Your task to perform on an android device: When is my next meeting? Image 0: 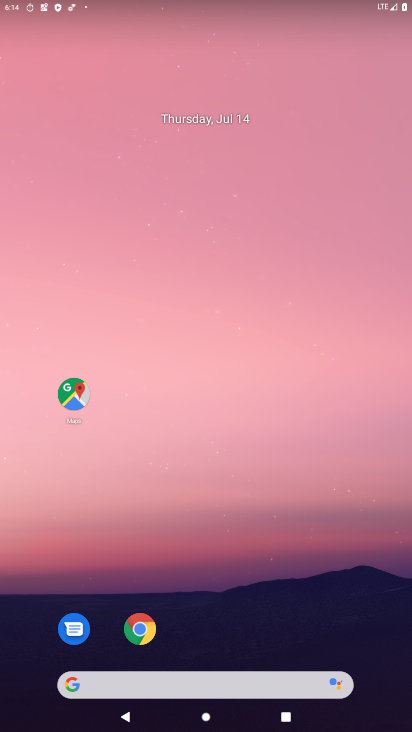
Step 0: drag from (273, 675) to (266, 24)
Your task to perform on an android device: When is my next meeting? Image 1: 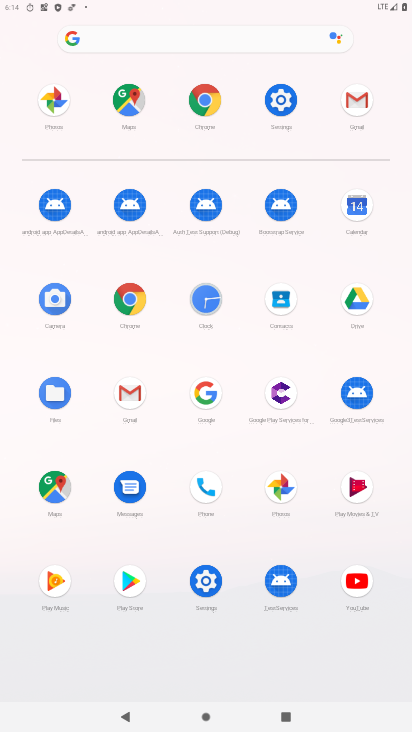
Step 1: click (347, 204)
Your task to perform on an android device: When is my next meeting? Image 2: 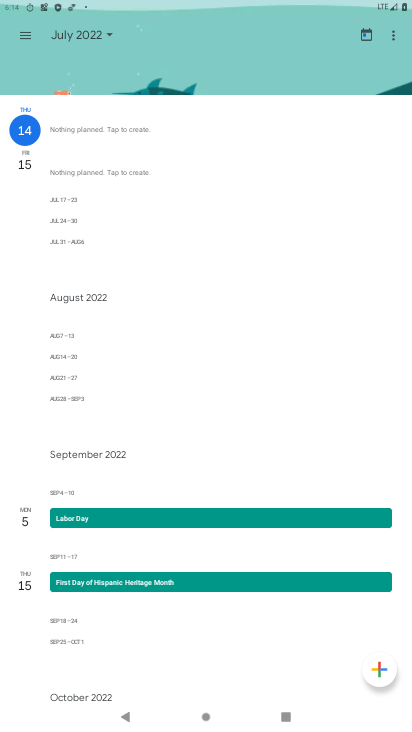
Step 2: click (110, 32)
Your task to perform on an android device: When is my next meeting? Image 3: 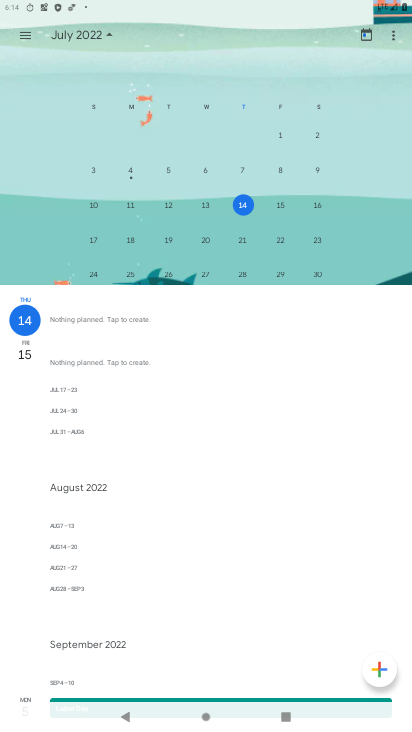
Step 3: click (272, 203)
Your task to perform on an android device: When is my next meeting? Image 4: 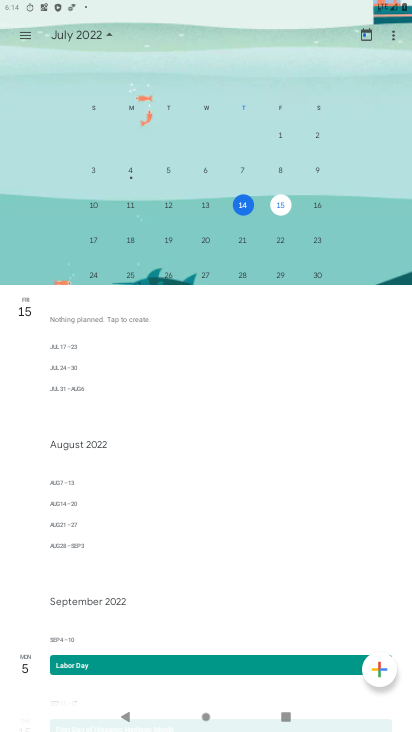
Step 4: task complete